Your task to perform on an android device: Is it going to rain today? Image 0: 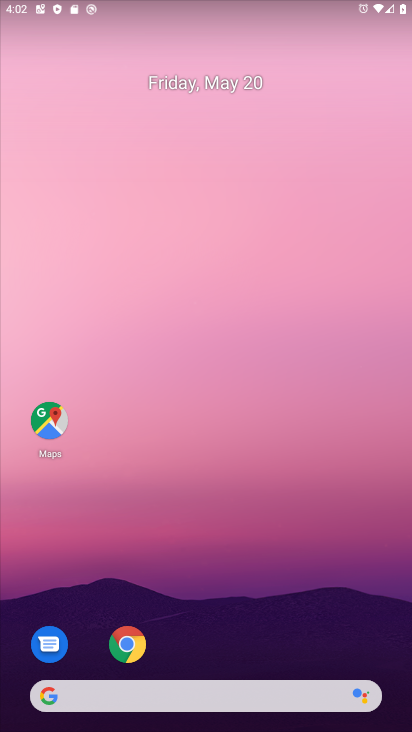
Step 0: click (225, 691)
Your task to perform on an android device: Is it going to rain today? Image 1: 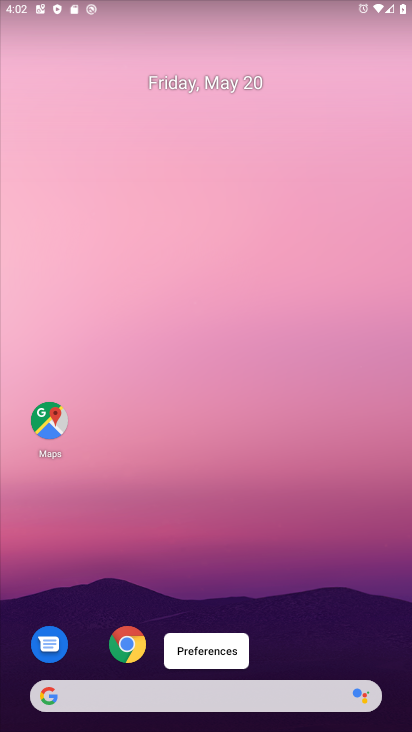
Step 1: click (189, 690)
Your task to perform on an android device: Is it going to rain today? Image 2: 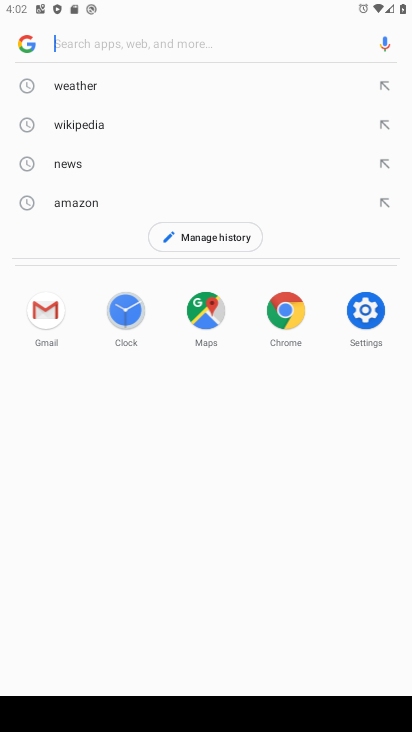
Step 2: click (125, 91)
Your task to perform on an android device: Is it going to rain today? Image 3: 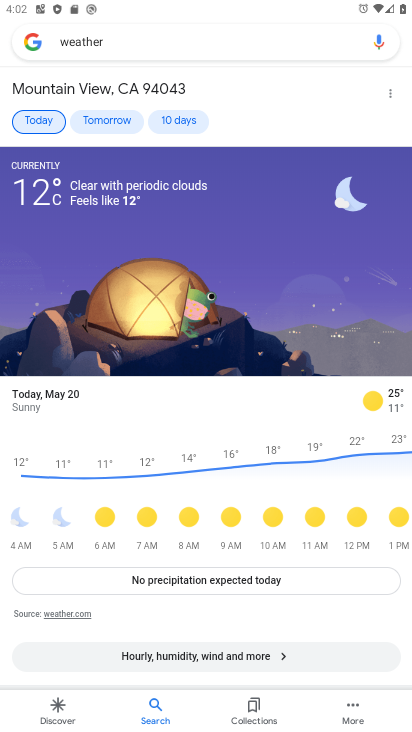
Step 3: task complete